Your task to perform on an android device: turn on wifi Image 0: 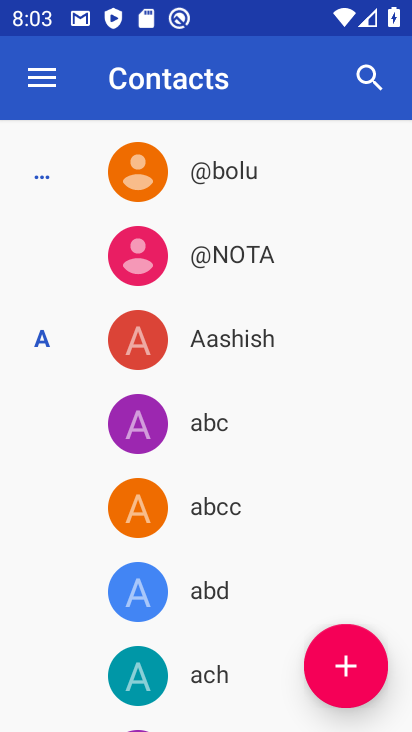
Step 0: press home button
Your task to perform on an android device: turn on wifi Image 1: 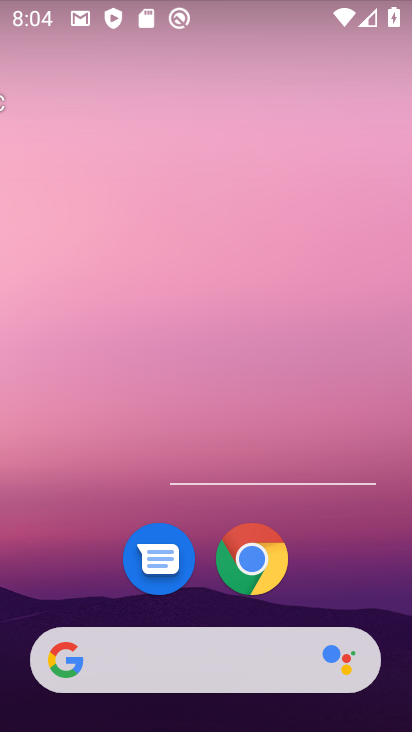
Step 1: drag from (357, 599) to (339, 9)
Your task to perform on an android device: turn on wifi Image 2: 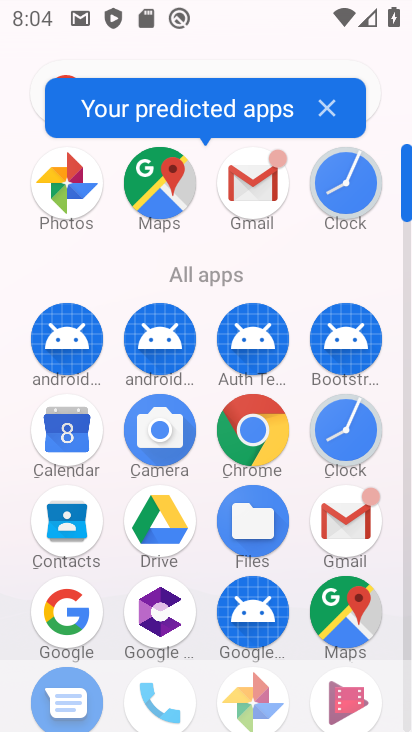
Step 2: click (408, 599)
Your task to perform on an android device: turn on wifi Image 3: 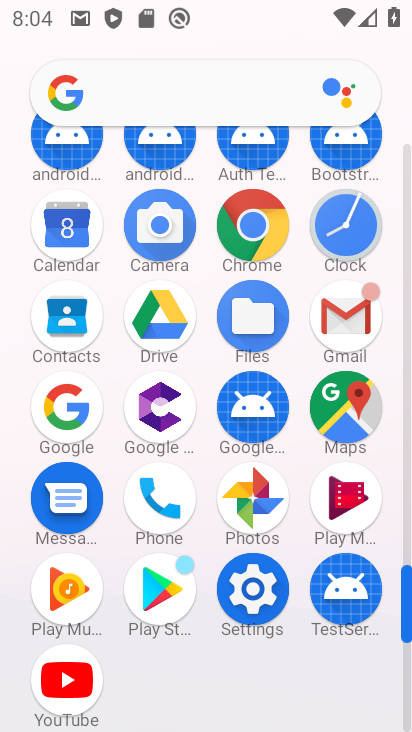
Step 3: click (261, 594)
Your task to perform on an android device: turn on wifi Image 4: 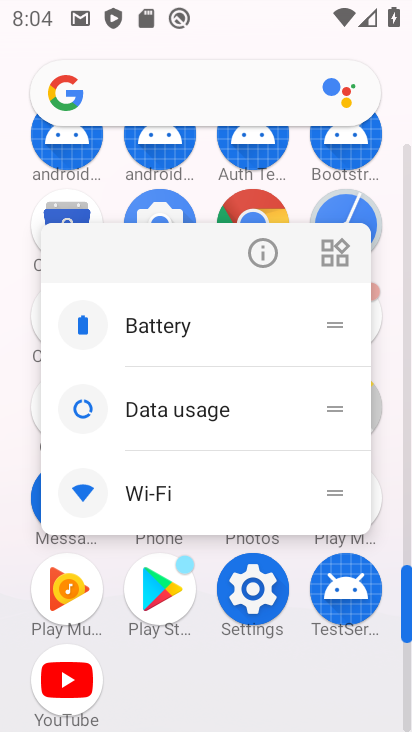
Step 4: click (147, 491)
Your task to perform on an android device: turn on wifi Image 5: 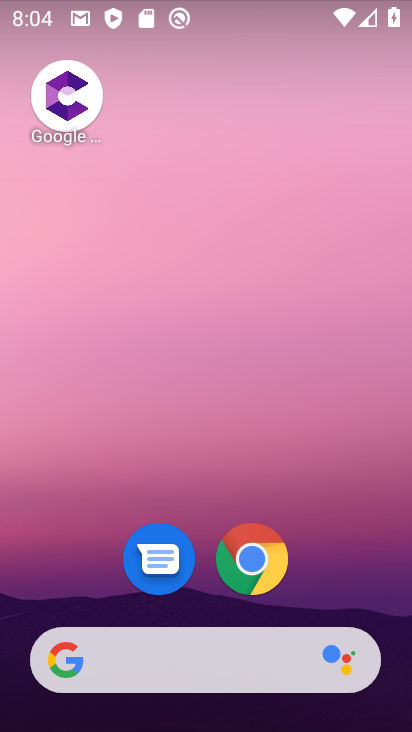
Step 5: drag from (347, 581) to (317, 0)
Your task to perform on an android device: turn on wifi Image 6: 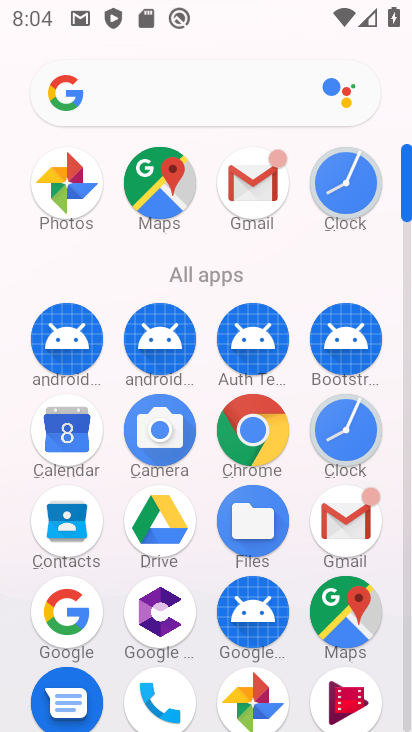
Step 6: drag from (407, 475) to (409, 311)
Your task to perform on an android device: turn on wifi Image 7: 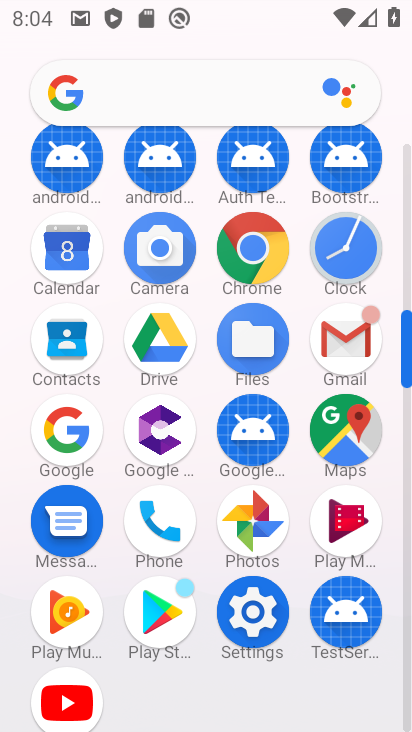
Step 7: click (263, 609)
Your task to perform on an android device: turn on wifi Image 8: 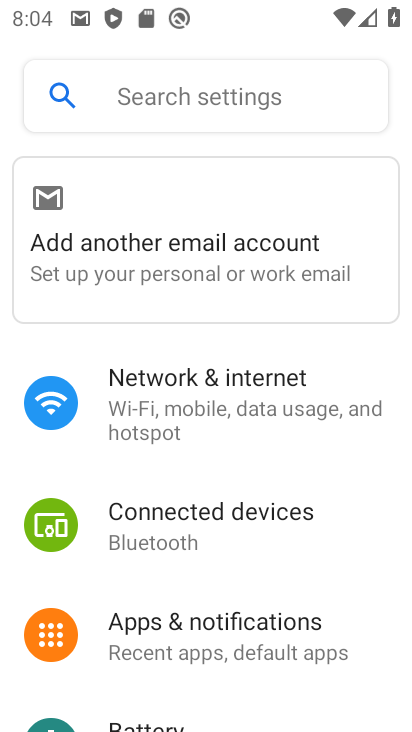
Step 8: click (179, 398)
Your task to perform on an android device: turn on wifi Image 9: 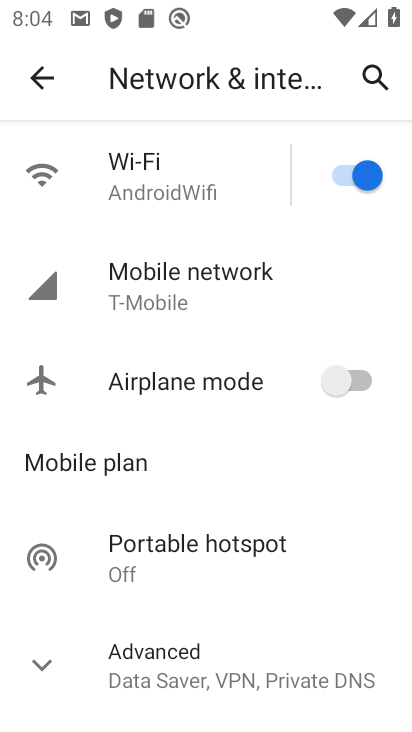
Step 9: task complete